Your task to perform on an android device: star an email in the gmail app Image 0: 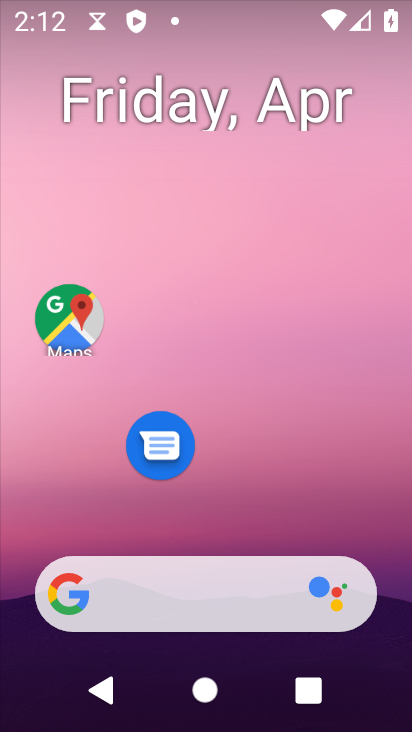
Step 0: drag from (284, 460) to (261, 155)
Your task to perform on an android device: star an email in the gmail app Image 1: 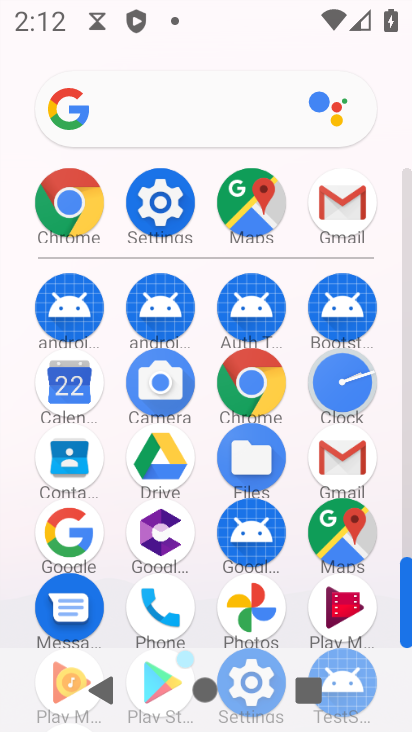
Step 1: click (333, 461)
Your task to perform on an android device: star an email in the gmail app Image 2: 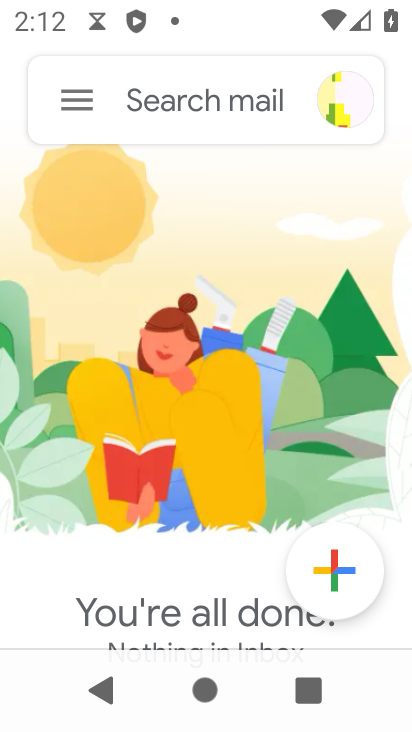
Step 2: click (80, 112)
Your task to perform on an android device: star an email in the gmail app Image 3: 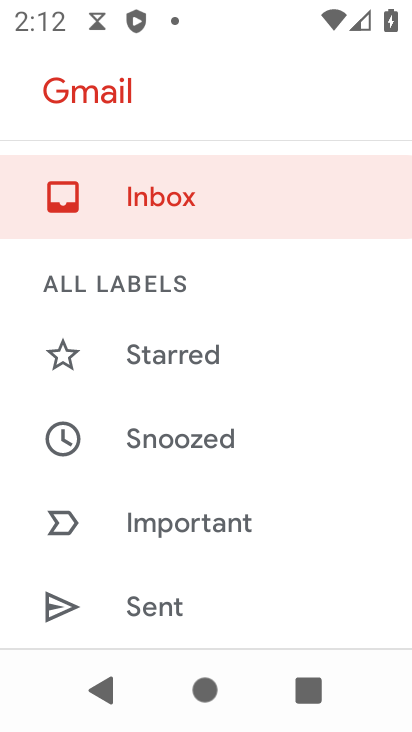
Step 3: drag from (191, 560) to (205, 371)
Your task to perform on an android device: star an email in the gmail app Image 4: 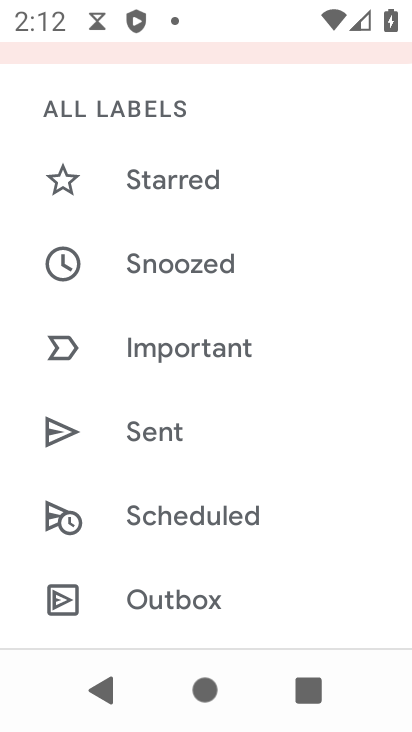
Step 4: drag from (188, 537) to (191, 340)
Your task to perform on an android device: star an email in the gmail app Image 5: 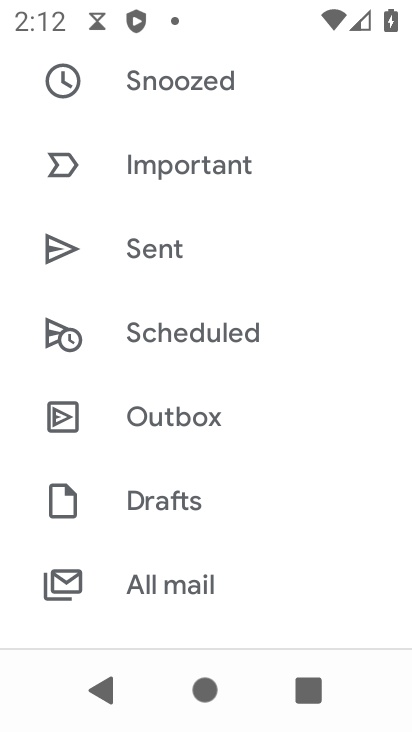
Step 5: click (198, 563)
Your task to perform on an android device: star an email in the gmail app Image 6: 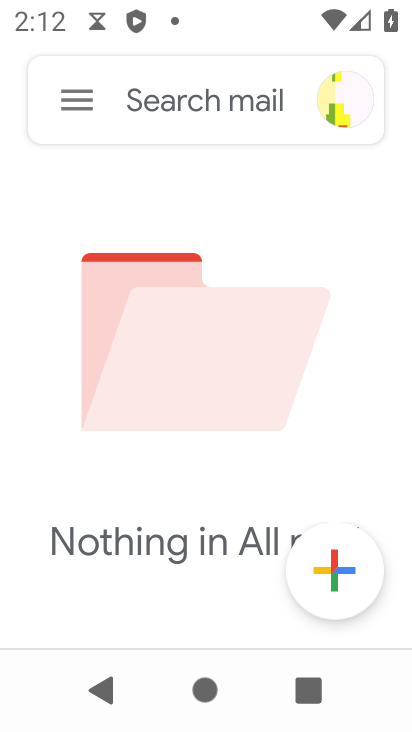
Step 6: task complete